Your task to perform on an android device: check android version Image 0: 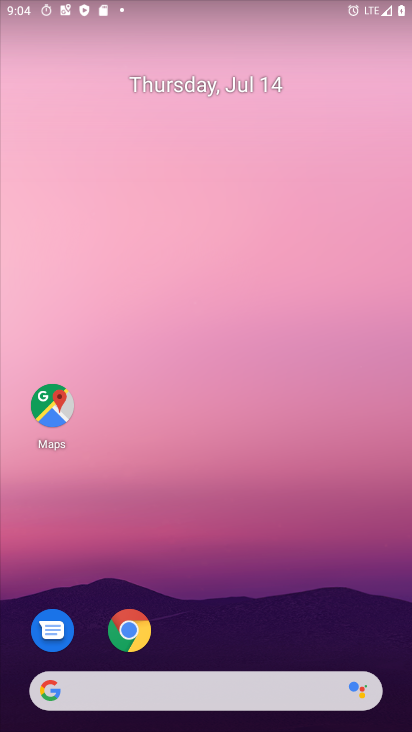
Step 0: drag from (213, 669) to (205, 208)
Your task to perform on an android device: check android version Image 1: 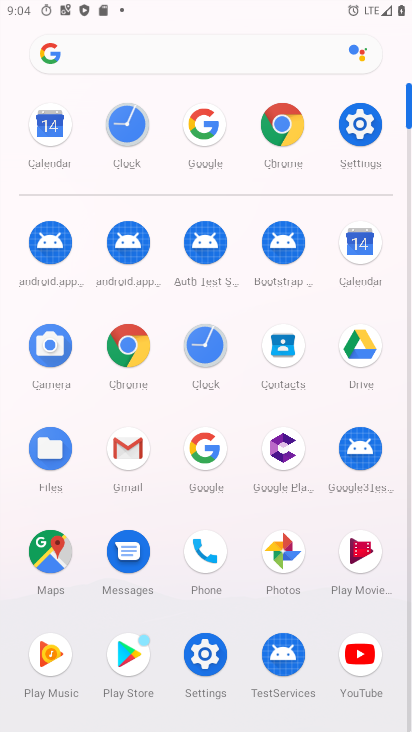
Step 1: click (363, 121)
Your task to perform on an android device: check android version Image 2: 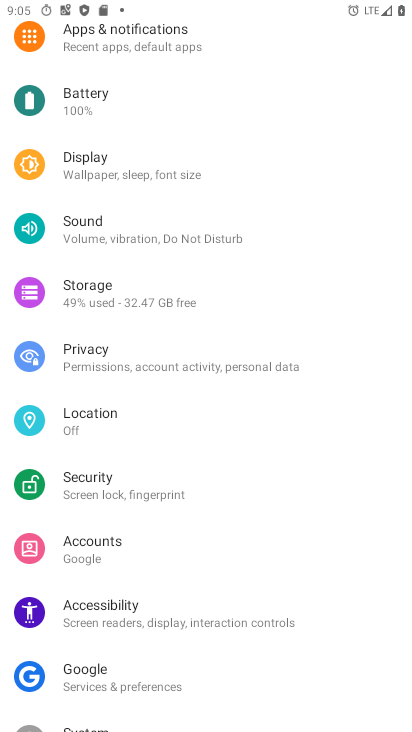
Step 2: drag from (133, 707) to (130, 377)
Your task to perform on an android device: check android version Image 3: 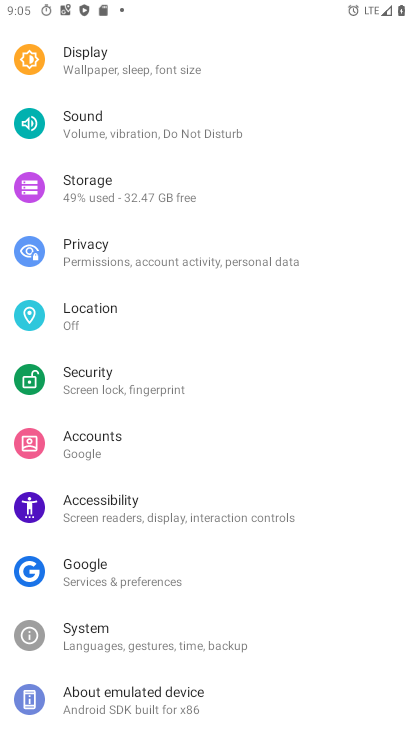
Step 3: click (98, 689)
Your task to perform on an android device: check android version Image 4: 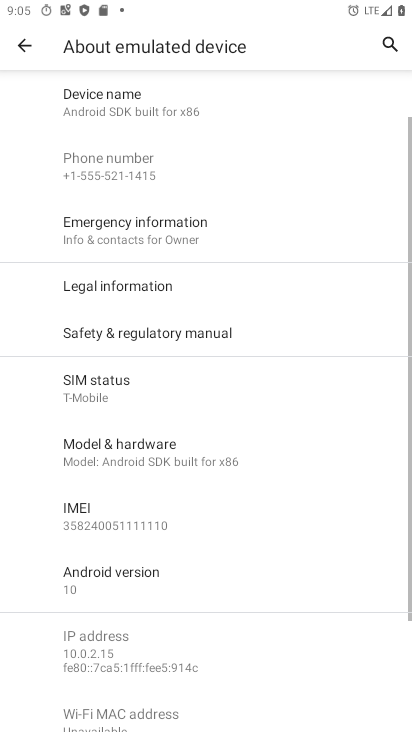
Step 4: click (91, 578)
Your task to perform on an android device: check android version Image 5: 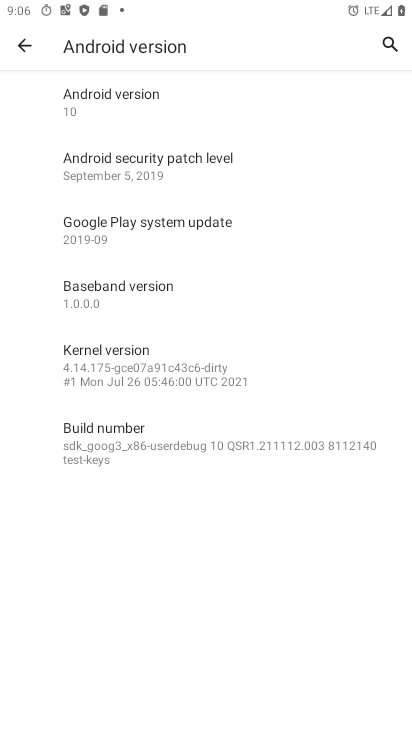
Step 5: task complete